Your task to perform on an android device: open device folders in google photos Image 0: 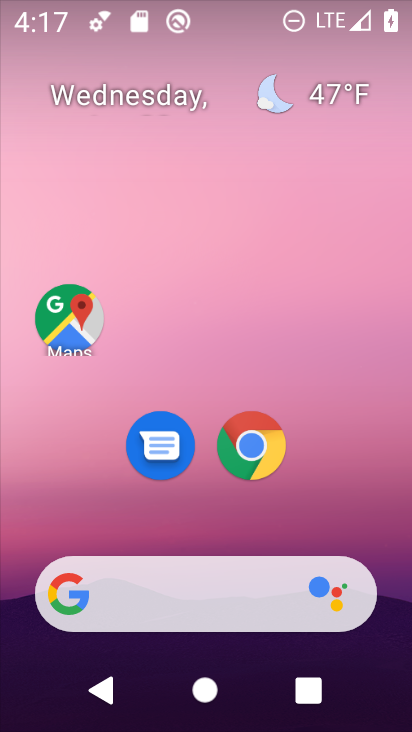
Step 0: drag from (230, 514) to (233, 1)
Your task to perform on an android device: open device folders in google photos Image 1: 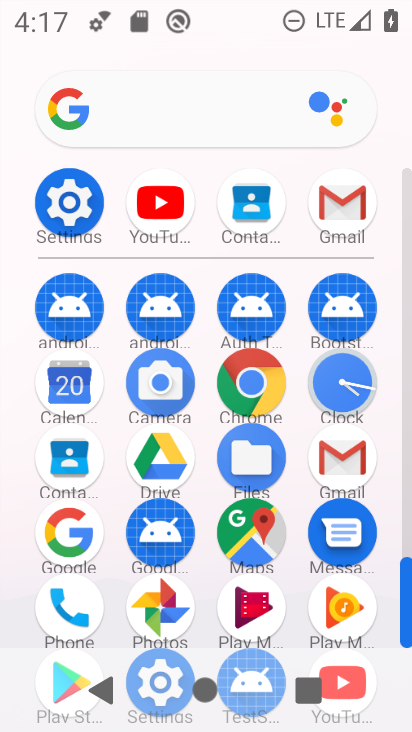
Step 1: drag from (222, 553) to (210, 265)
Your task to perform on an android device: open device folders in google photos Image 2: 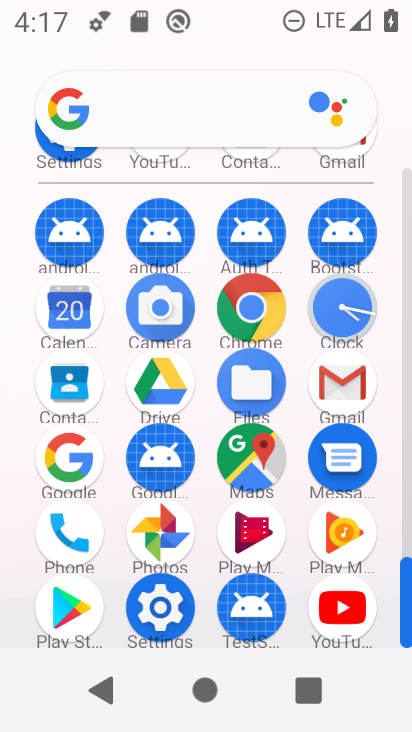
Step 2: click (158, 530)
Your task to perform on an android device: open device folders in google photos Image 3: 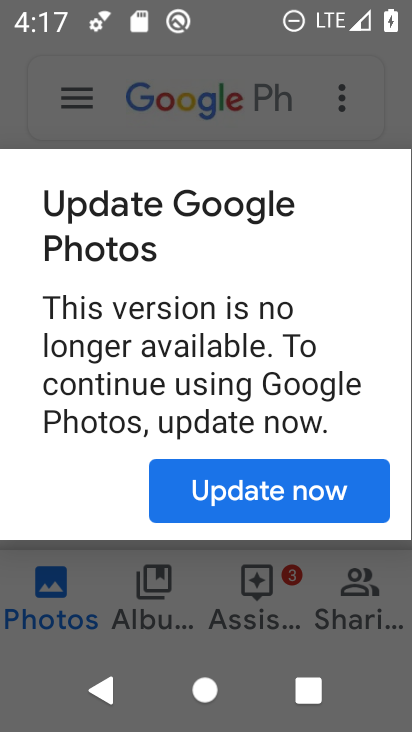
Step 3: click (198, 492)
Your task to perform on an android device: open device folders in google photos Image 4: 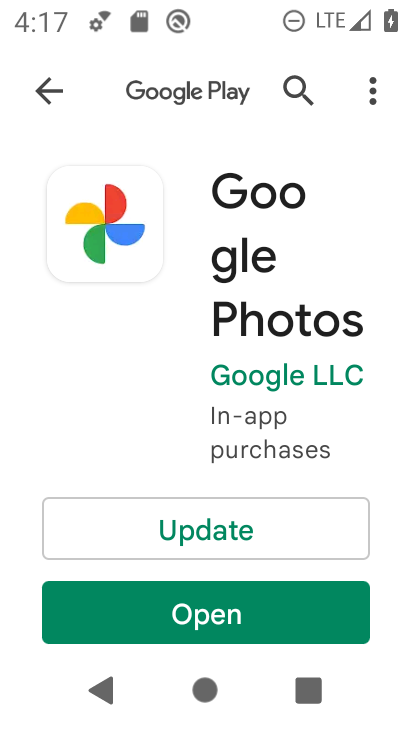
Step 4: click (208, 594)
Your task to perform on an android device: open device folders in google photos Image 5: 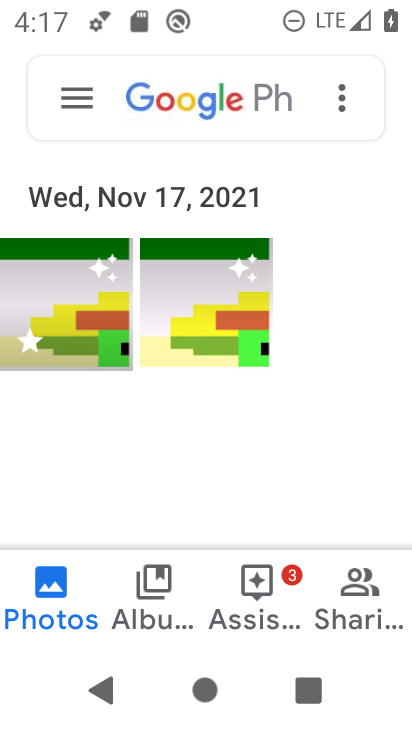
Step 5: click (70, 105)
Your task to perform on an android device: open device folders in google photos Image 6: 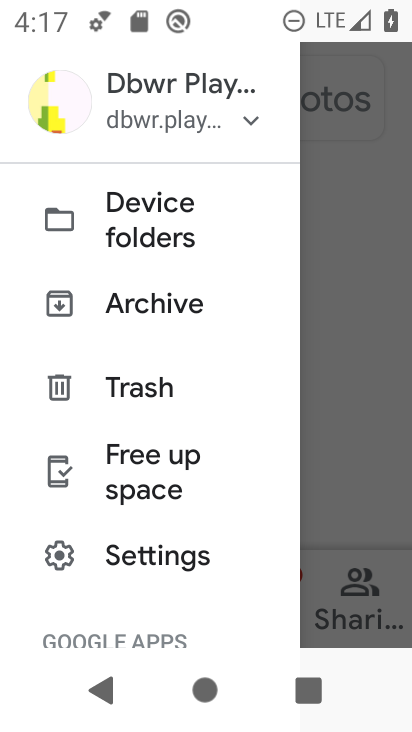
Step 6: click (139, 214)
Your task to perform on an android device: open device folders in google photos Image 7: 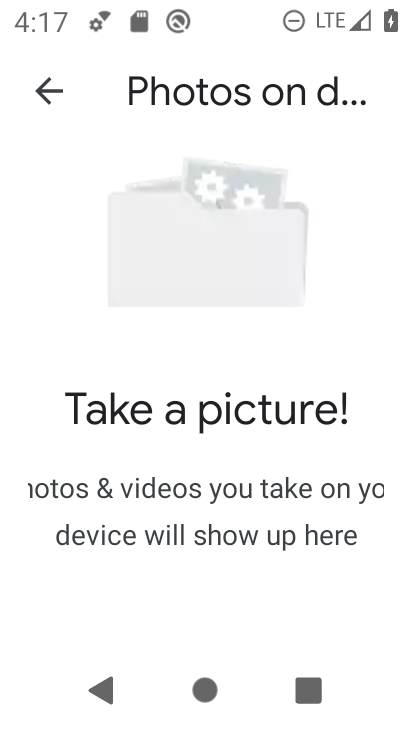
Step 7: task complete